Your task to perform on an android device: install app "Expedia: Hotels, Flights & Car" Image 0: 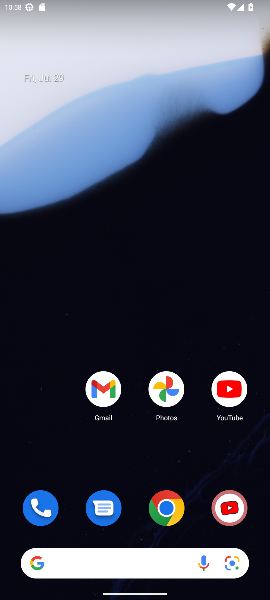
Step 0: drag from (130, 564) to (130, 91)
Your task to perform on an android device: install app "Expedia: Hotels, Flights & Car" Image 1: 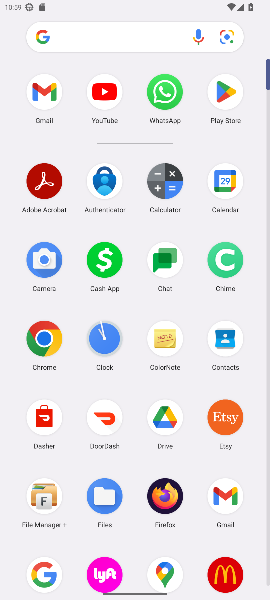
Step 1: click (232, 95)
Your task to perform on an android device: install app "Expedia: Hotels, Flights & Car" Image 2: 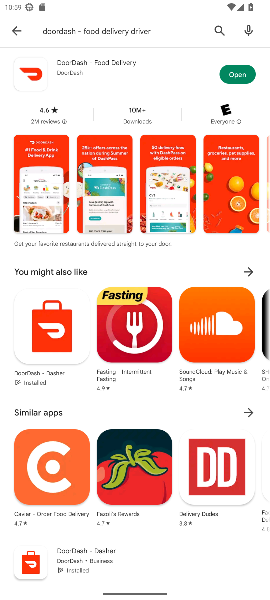
Step 2: click (217, 27)
Your task to perform on an android device: install app "Expedia: Hotels, Flights & Car" Image 3: 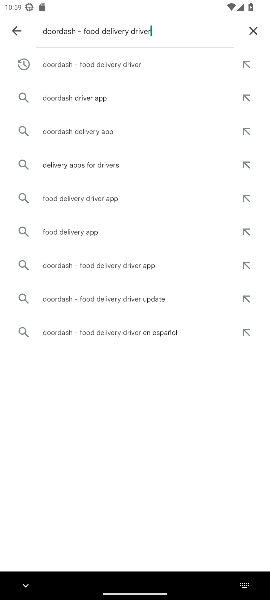
Step 3: click (252, 26)
Your task to perform on an android device: install app "Expedia: Hotels, Flights & Car" Image 4: 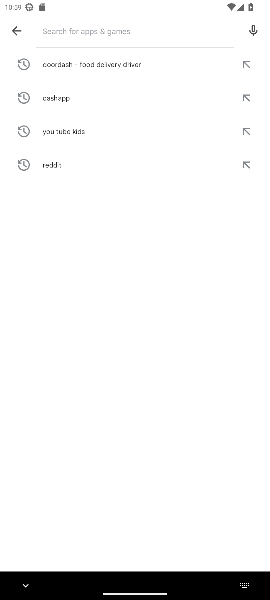
Step 4: type "expedia: hotel, flights & car"
Your task to perform on an android device: install app "Expedia: Hotels, Flights & Car" Image 5: 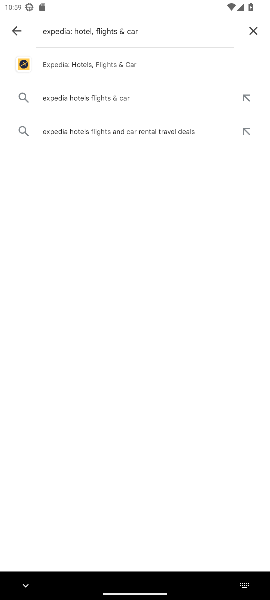
Step 5: click (163, 61)
Your task to perform on an android device: install app "Expedia: Hotels, Flights & Car" Image 6: 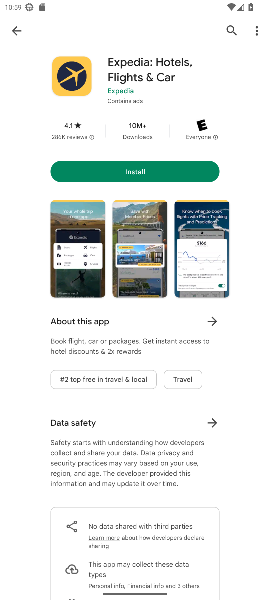
Step 6: click (150, 171)
Your task to perform on an android device: install app "Expedia: Hotels, Flights & Car" Image 7: 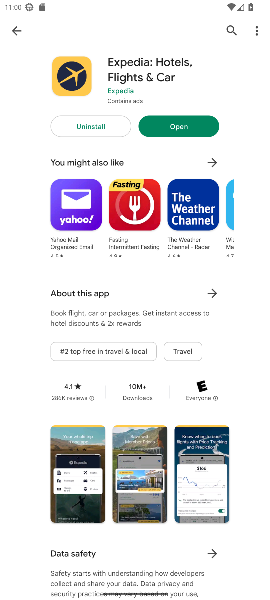
Step 7: task complete